Your task to perform on an android device: Search for "usb-c to usb-b" on target.com, select the first entry, add it to the cart, then select checkout. Image 0: 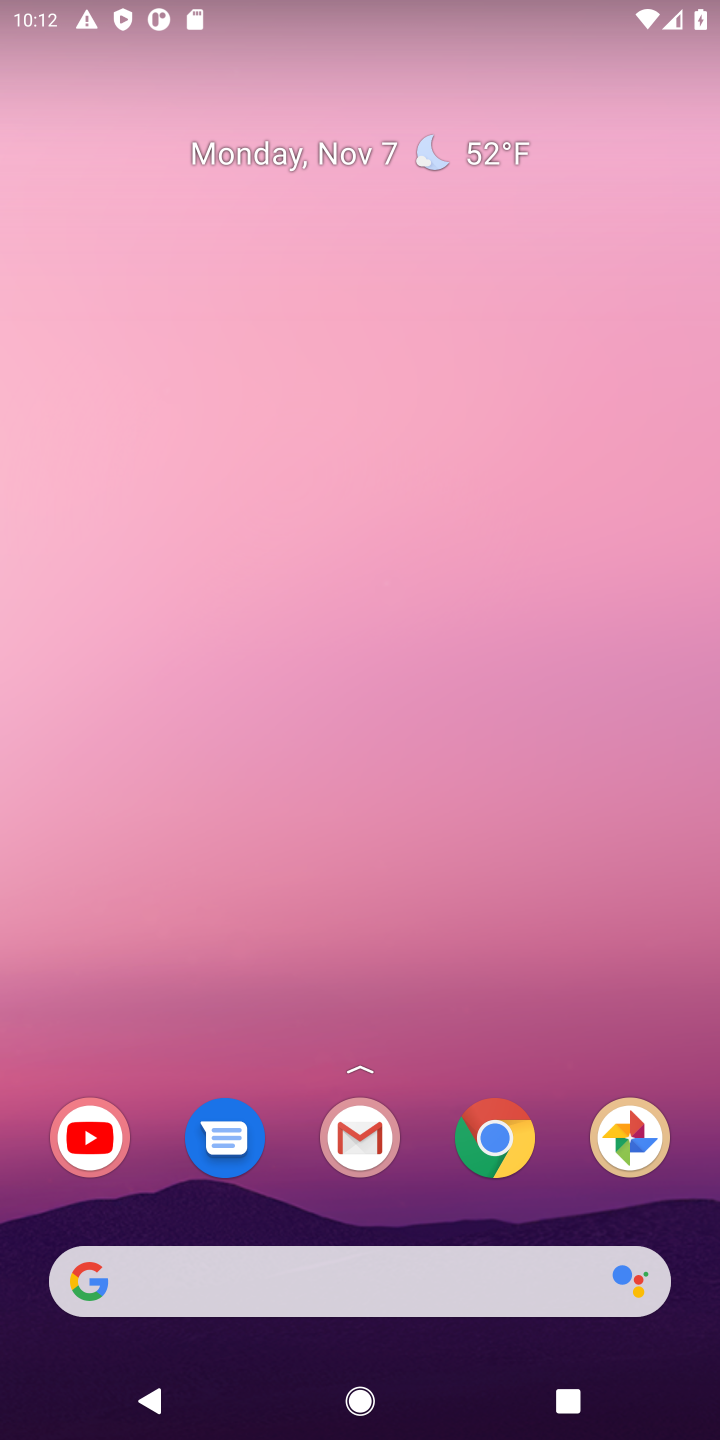
Step 0: click (479, 1144)
Your task to perform on an android device: Search for "usb-c to usb-b" on target.com, select the first entry, add it to the cart, then select checkout. Image 1: 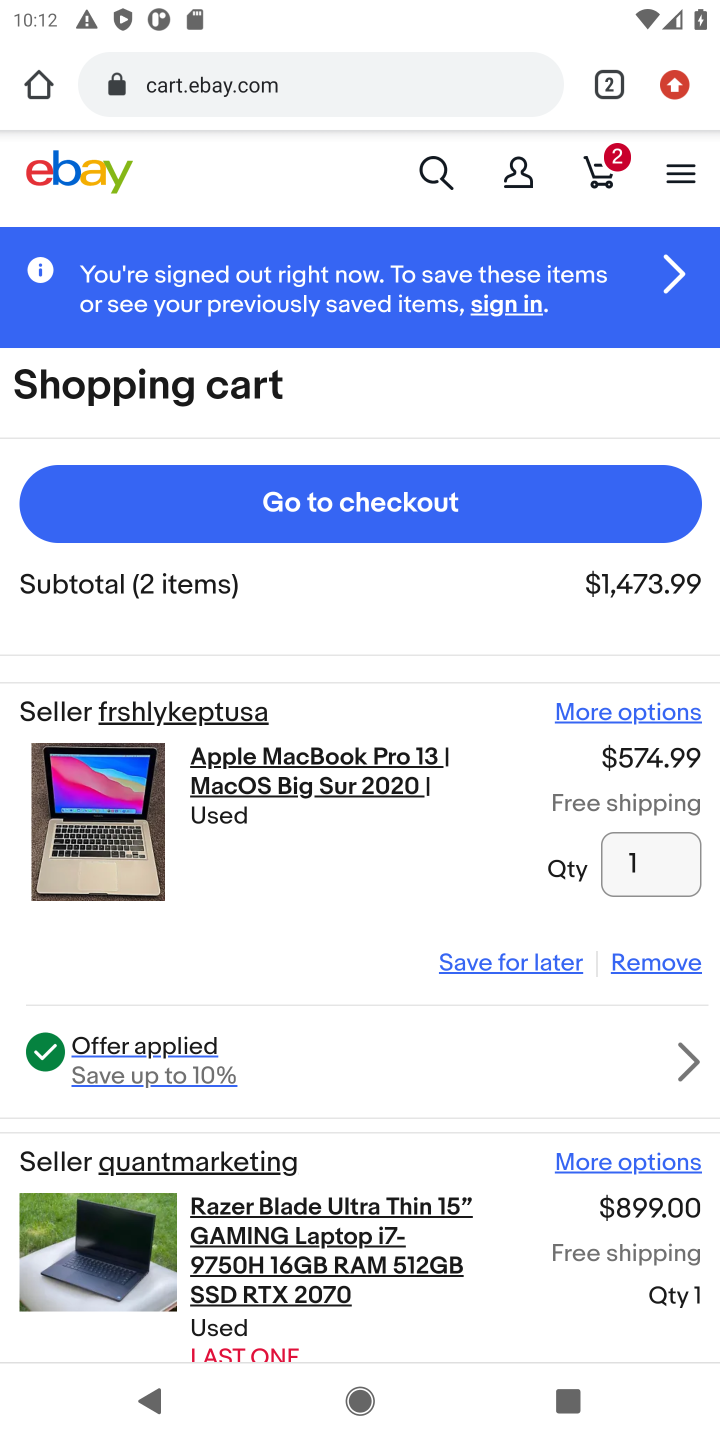
Step 1: click (215, 83)
Your task to perform on an android device: Search for "usb-c to usb-b" on target.com, select the first entry, add it to the cart, then select checkout. Image 2: 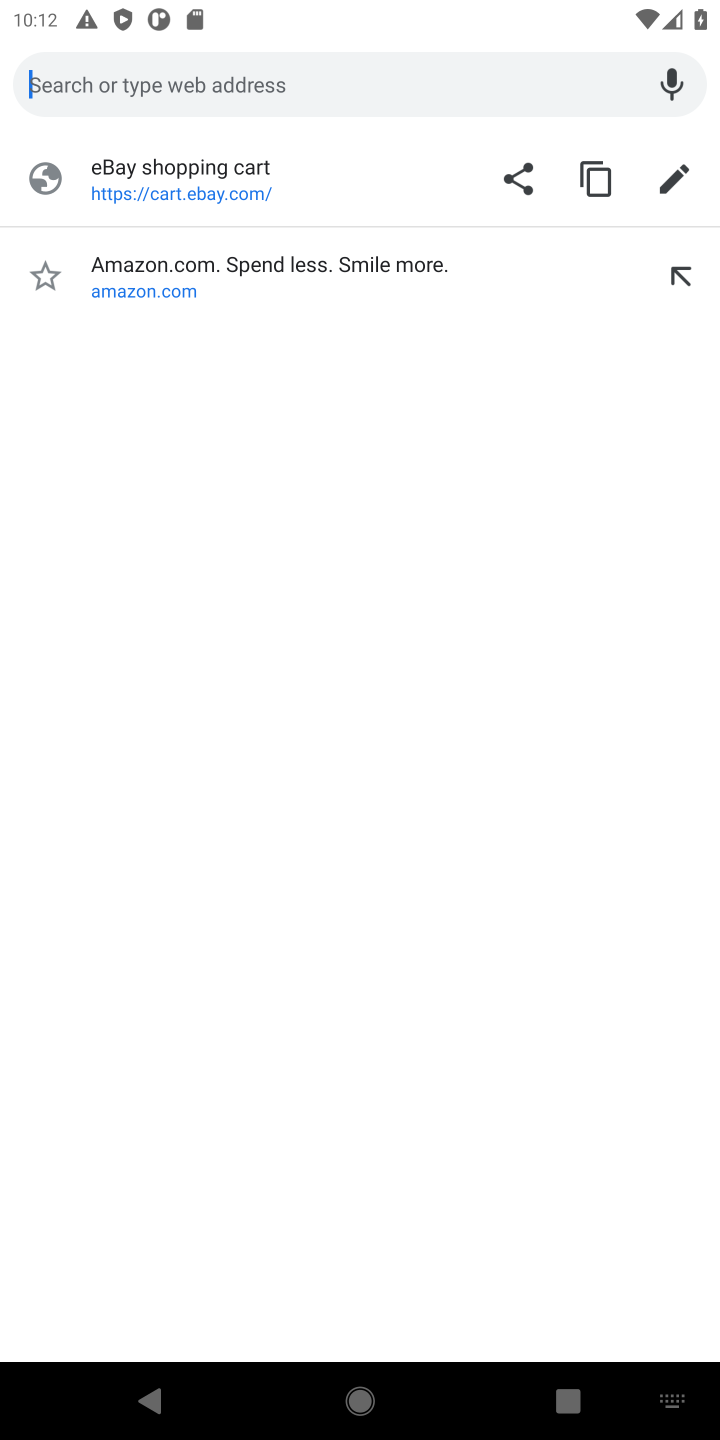
Step 2: type "target"
Your task to perform on an android device: Search for "usb-c to usb-b" on target.com, select the first entry, add it to the cart, then select checkout. Image 3: 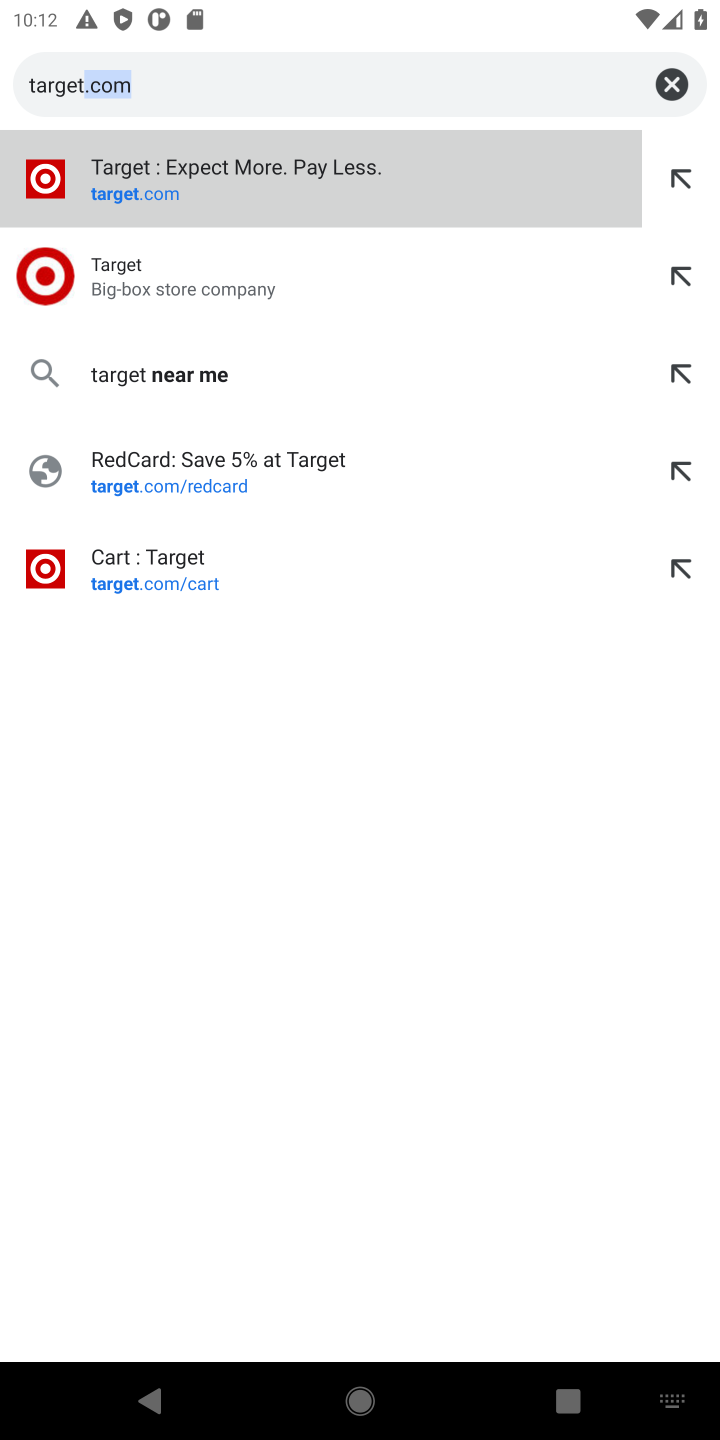
Step 3: click (139, 266)
Your task to perform on an android device: Search for "usb-c to usb-b" on target.com, select the first entry, add it to the cart, then select checkout. Image 4: 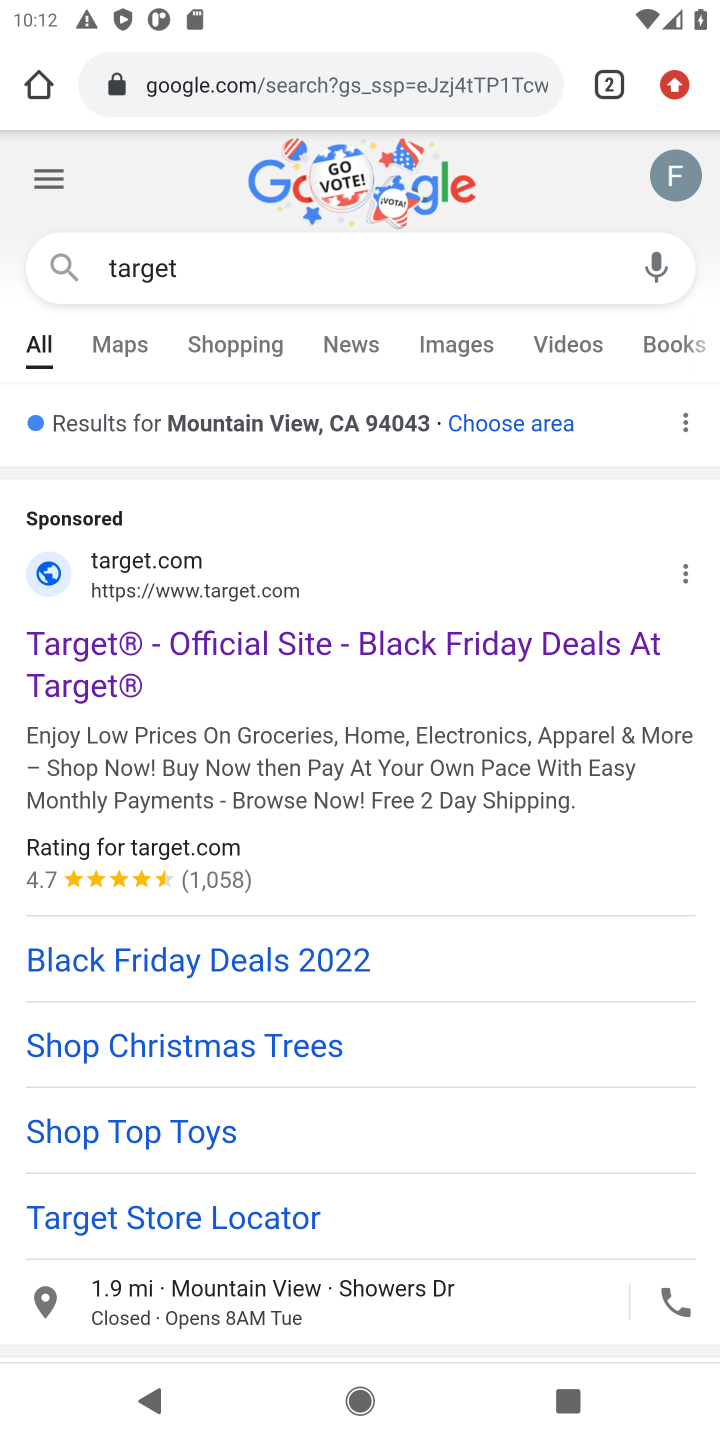
Step 4: drag from (357, 1041) to (439, 456)
Your task to perform on an android device: Search for "usb-c to usb-b" on target.com, select the first entry, add it to the cart, then select checkout. Image 5: 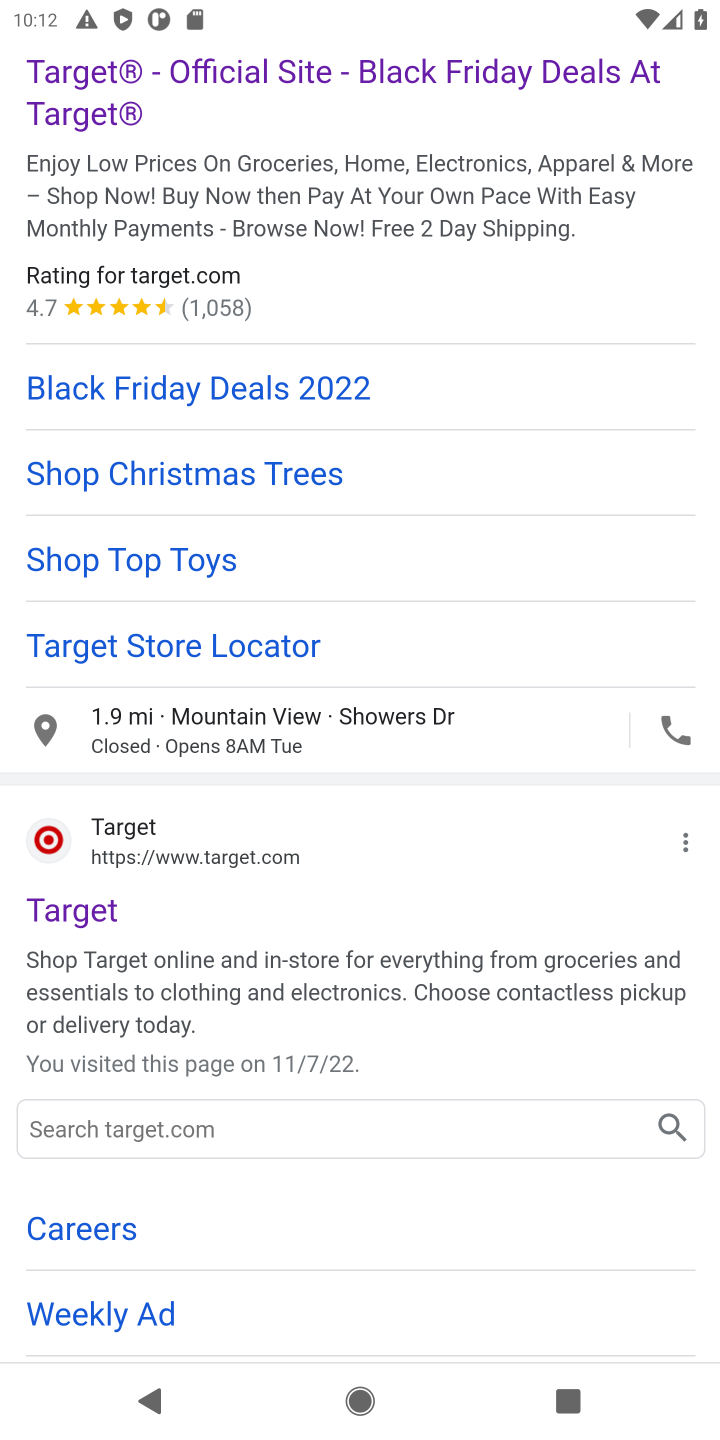
Step 5: click (68, 954)
Your task to perform on an android device: Search for "usb-c to usb-b" on target.com, select the first entry, add it to the cart, then select checkout. Image 6: 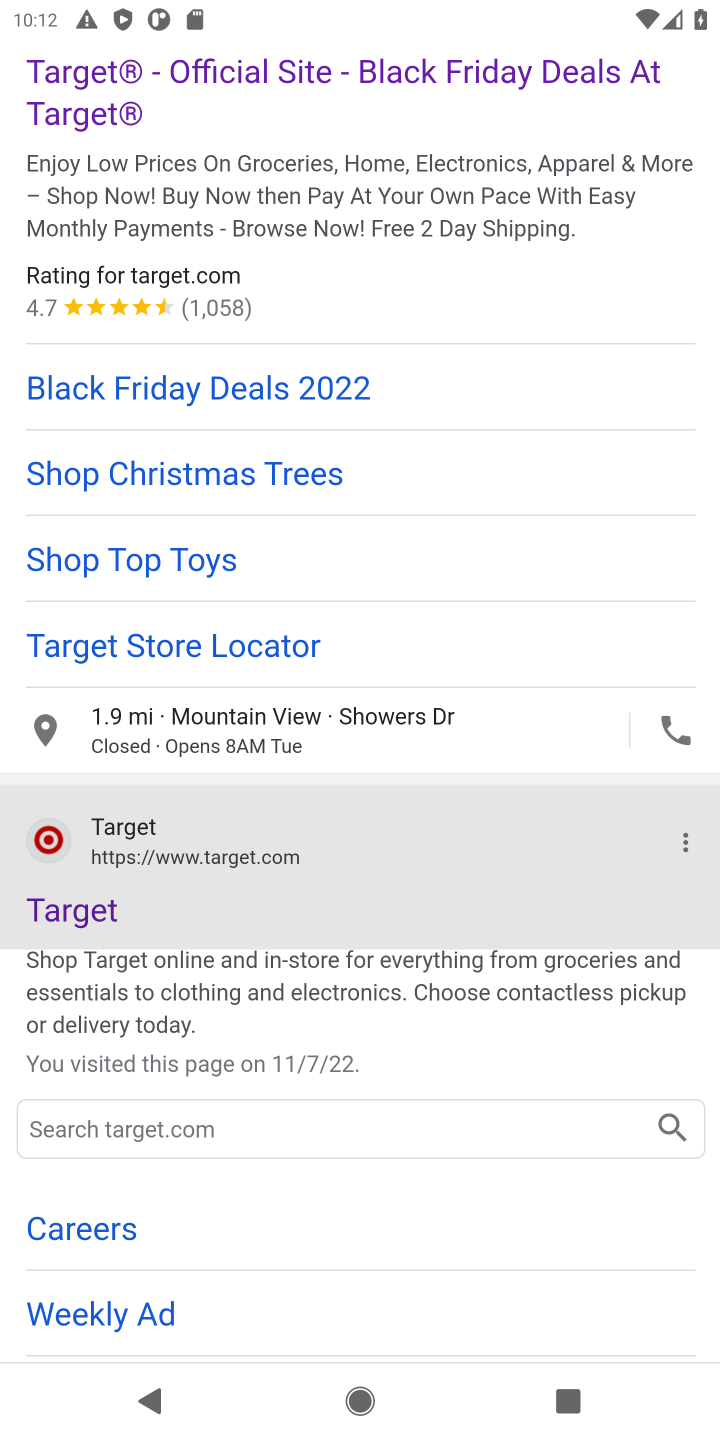
Step 6: click (77, 924)
Your task to perform on an android device: Search for "usb-c to usb-b" on target.com, select the first entry, add it to the cart, then select checkout. Image 7: 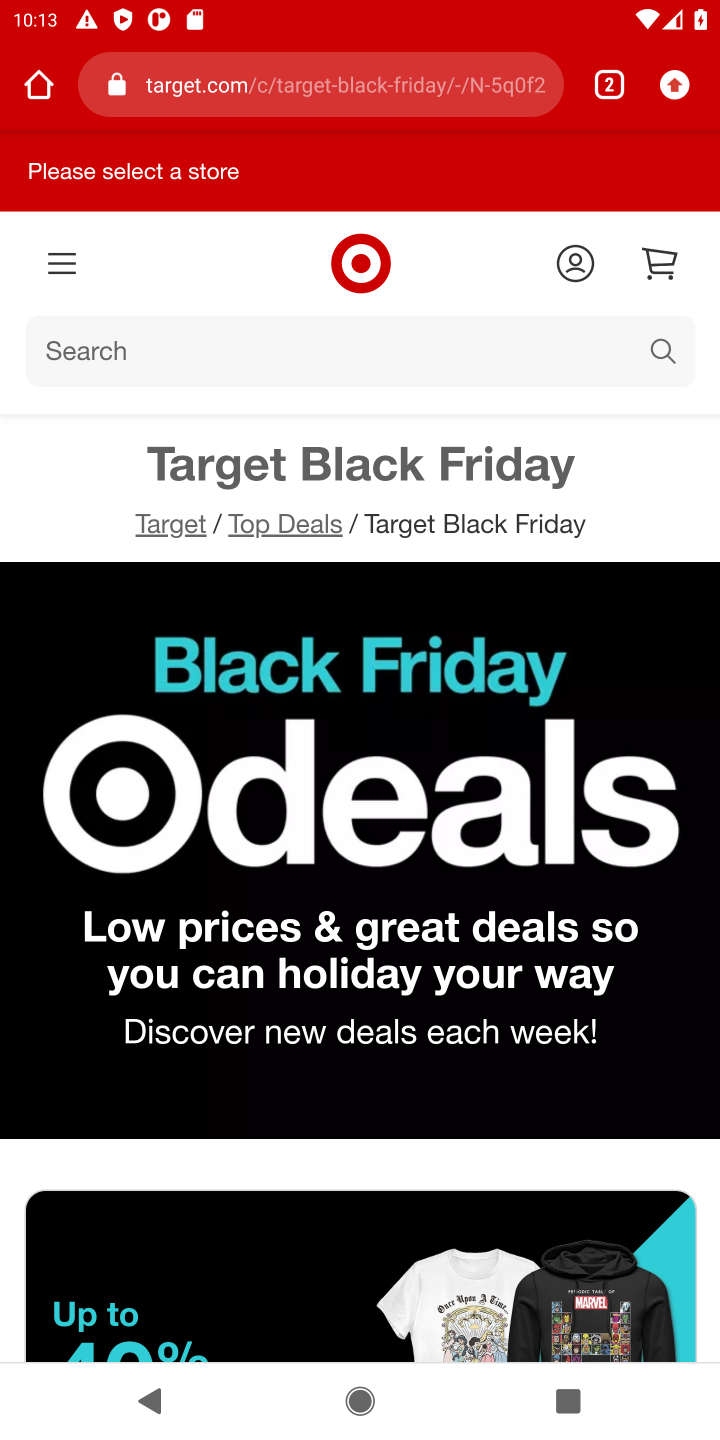
Step 7: click (636, 341)
Your task to perform on an android device: Search for "usb-c to usb-b" on target.com, select the first entry, add it to the cart, then select checkout. Image 8: 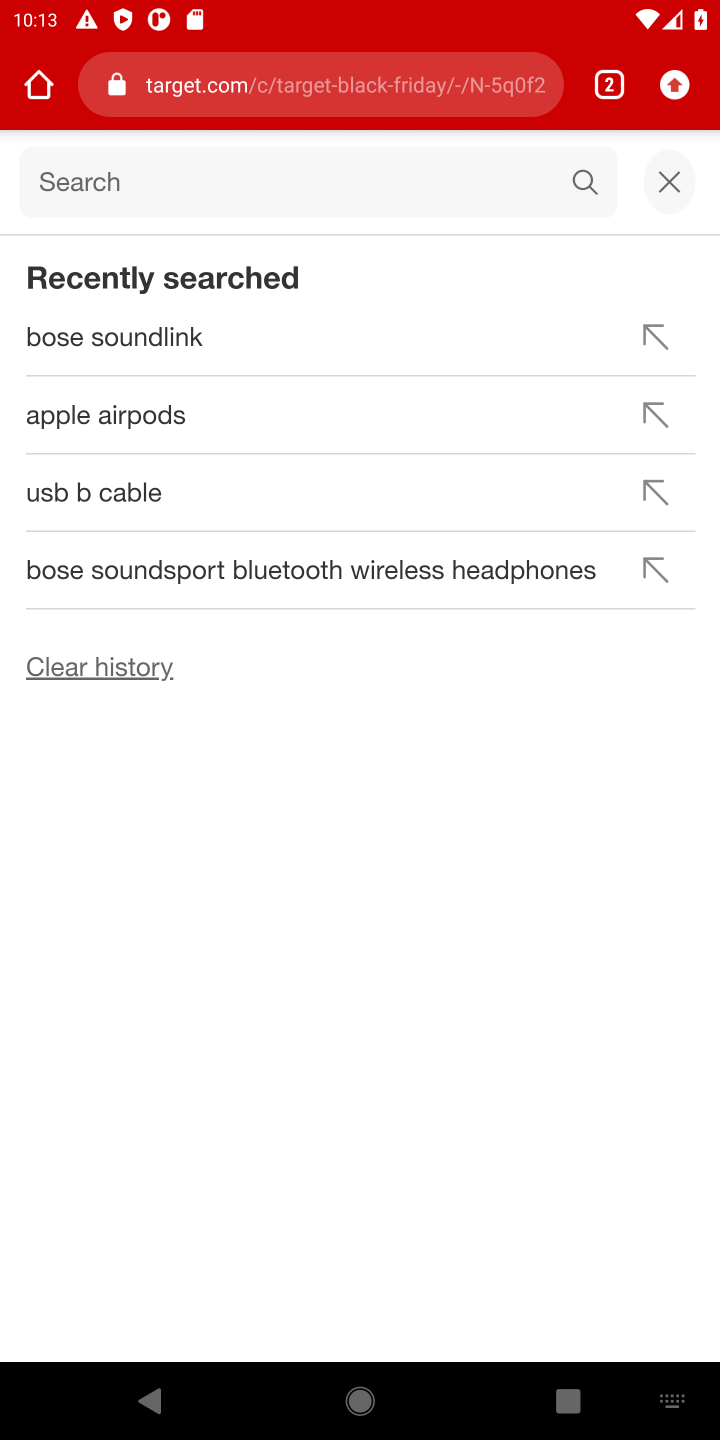
Step 8: type "usb c to usb b "
Your task to perform on an android device: Search for "usb-c to usb-b" on target.com, select the first entry, add it to the cart, then select checkout. Image 9: 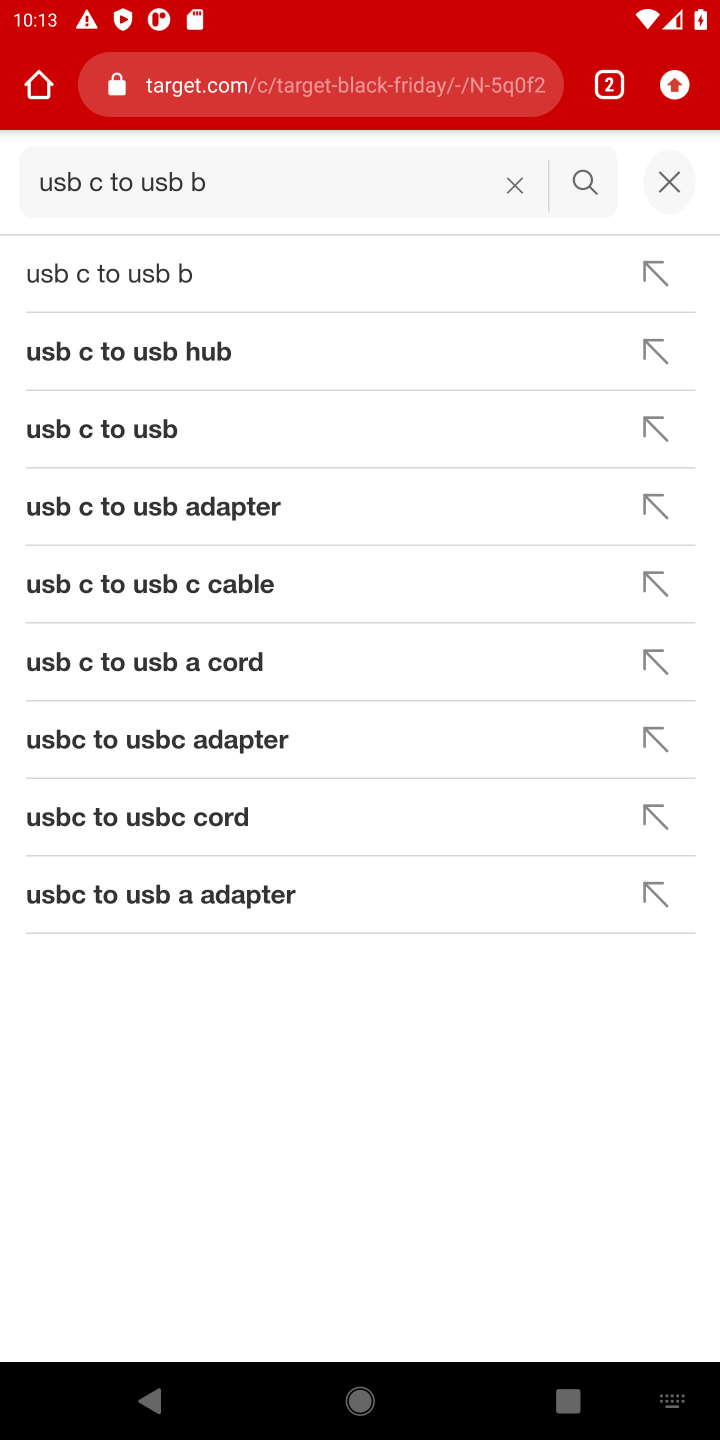
Step 9: click (146, 349)
Your task to perform on an android device: Search for "usb-c to usb-b" on target.com, select the first entry, add it to the cart, then select checkout. Image 10: 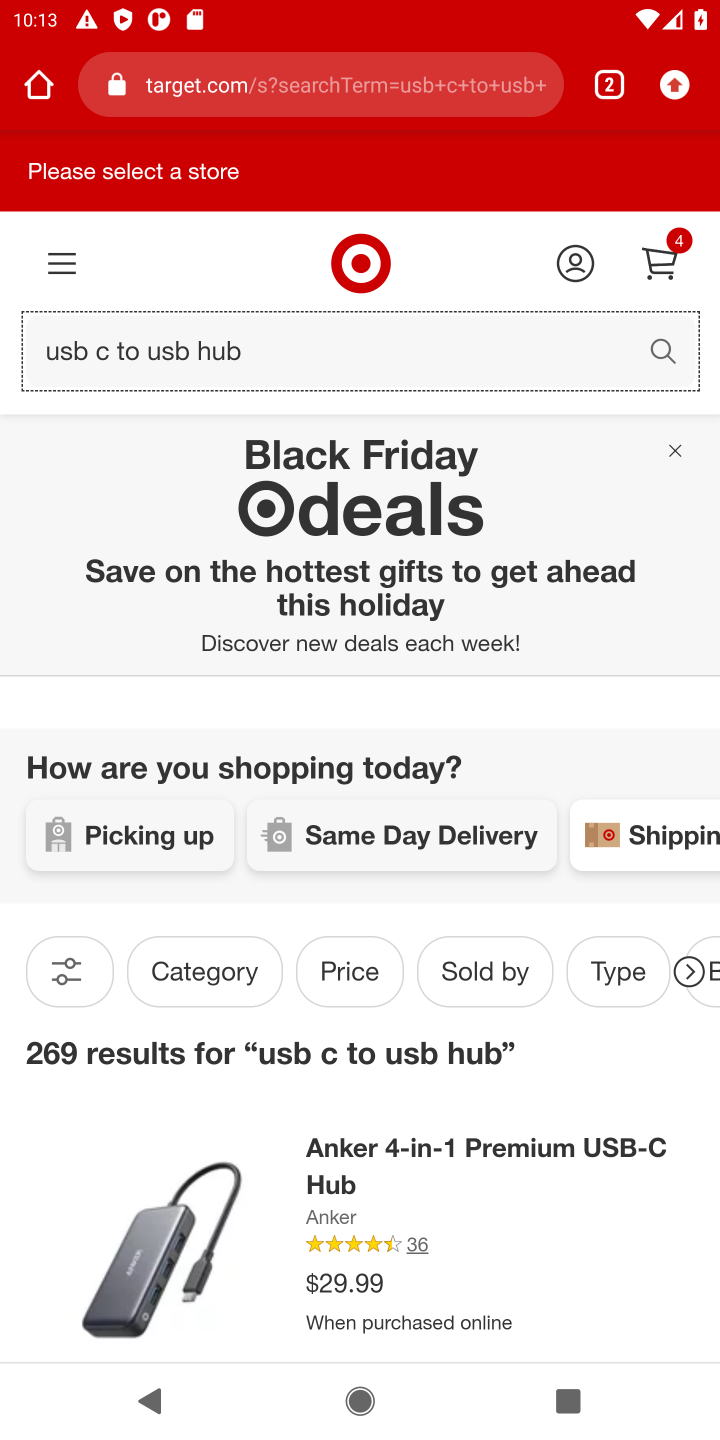
Step 10: drag from (503, 1280) to (513, 292)
Your task to perform on an android device: Search for "usb-c to usb-b" on target.com, select the first entry, add it to the cart, then select checkout. Image 11: 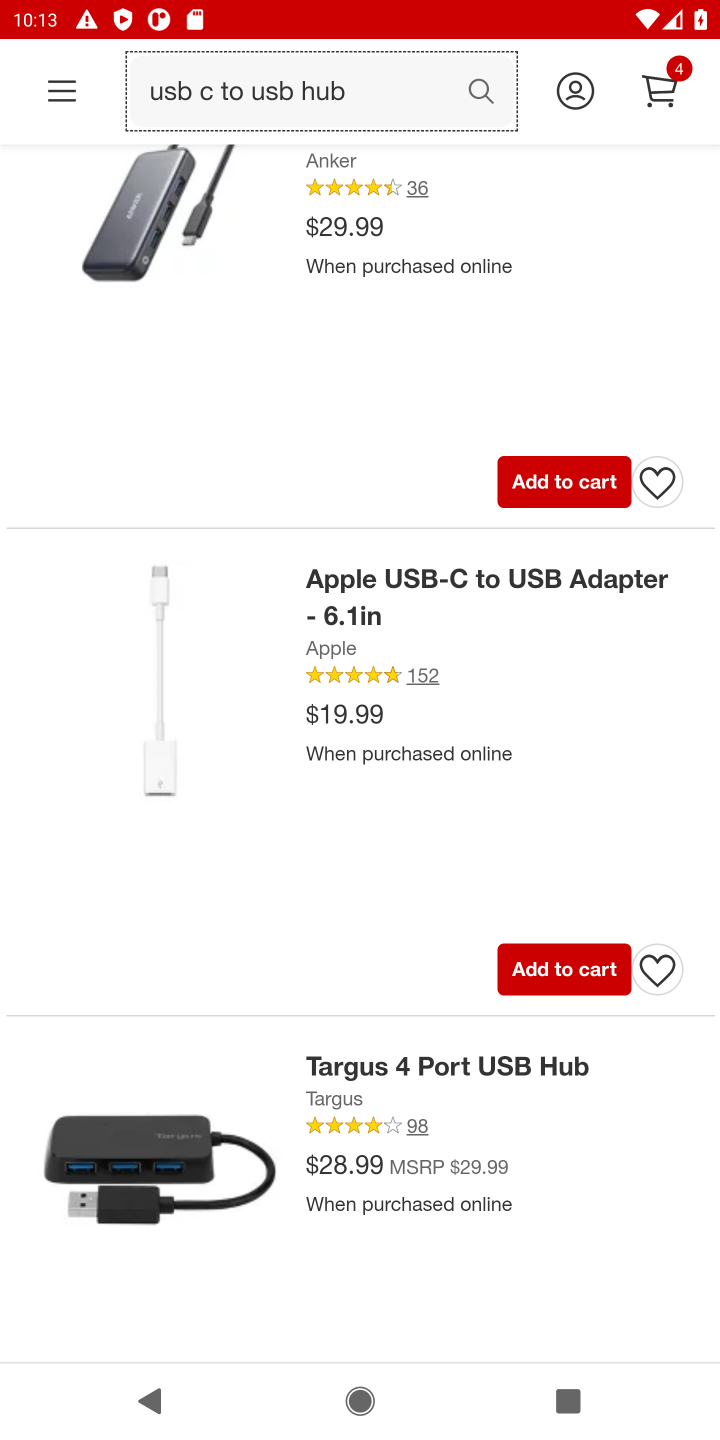
Step 11: click (404, 654)
Your task to perform on an android device: Search for "usb-c to usb-b" on target.com, select the first entry, add it to the cart, then select checkout. Image 12: 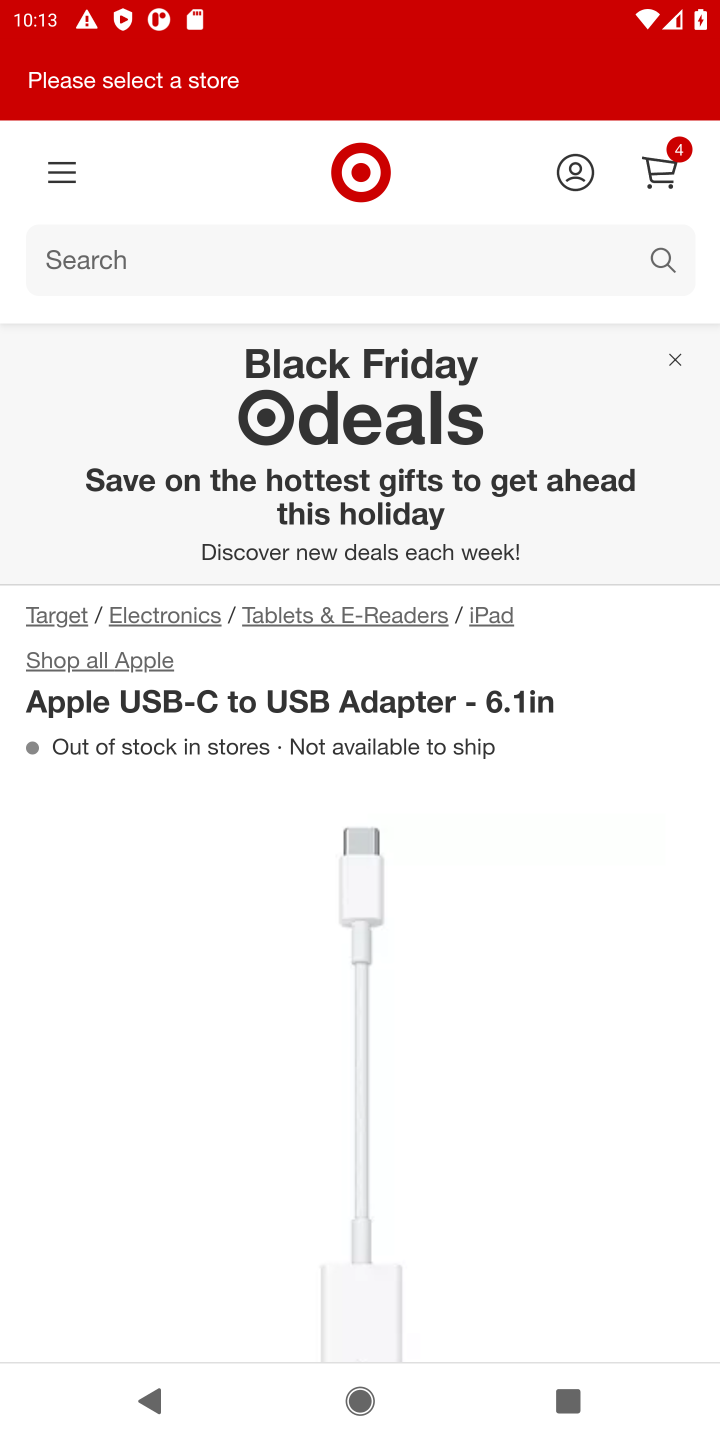
Step 12: drag from (531, 1044) to (503, 557)
Your task to perform on an android device: Search for "usb-c to usb-b" on target.com, select the first entry, add it to the cart, then select checkout. Image 13: 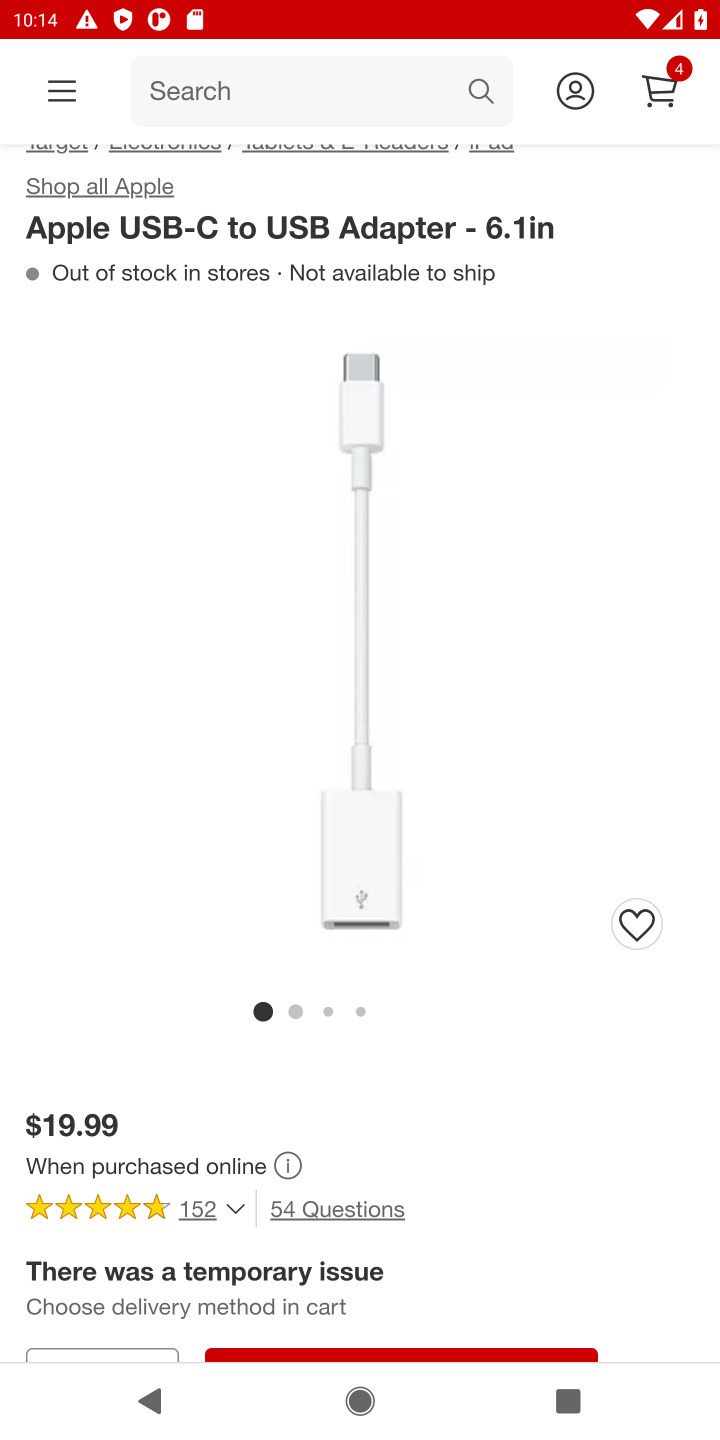
Step 13: drag from (294, 872) to (328, 306)
Your task to perform on an android device: Search for "usb-c to usb-b" on target.com, select the first entry, add it to the cart, then select checkout. Image 14: 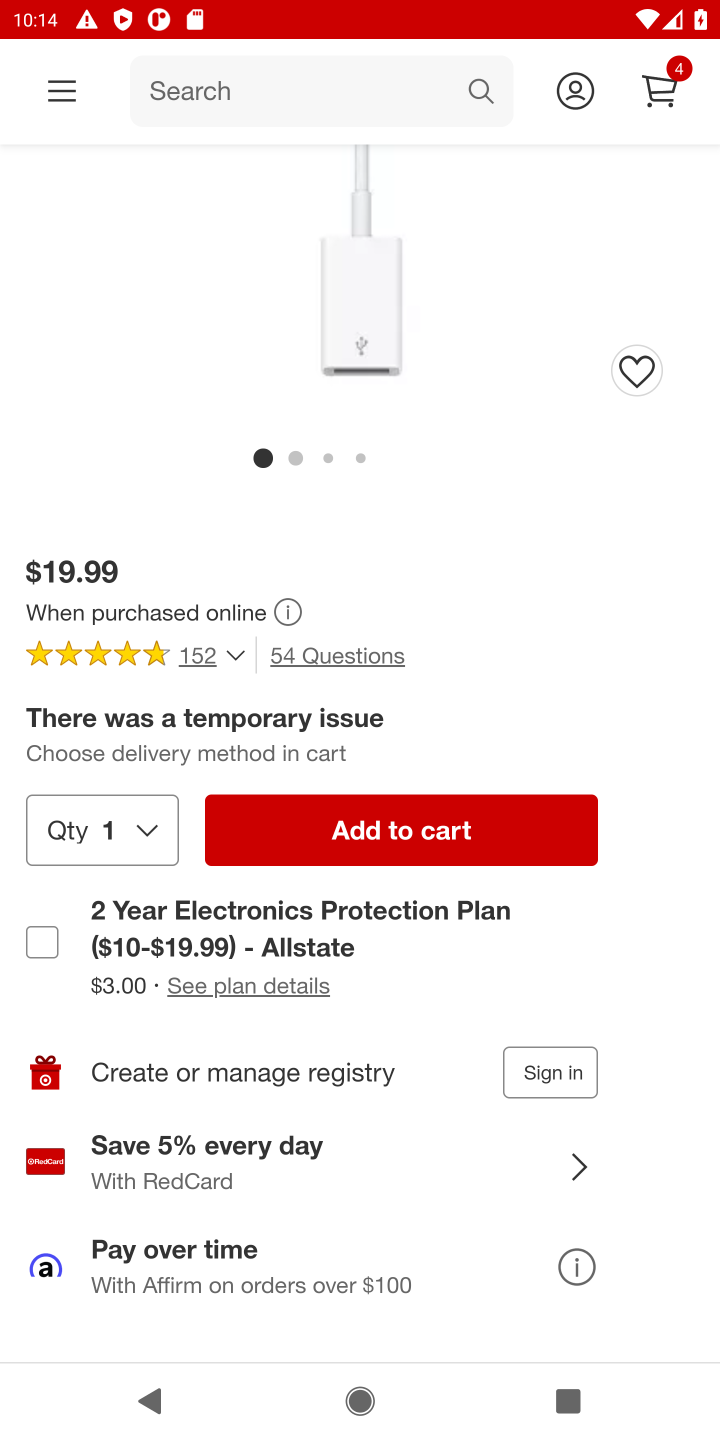
Step 14: click (367, 835)
Your task to perform on an android device: Search for "usb-c to usb-b" on target.com, select the first entry, add it to the cart, then select checkout. Image 15: 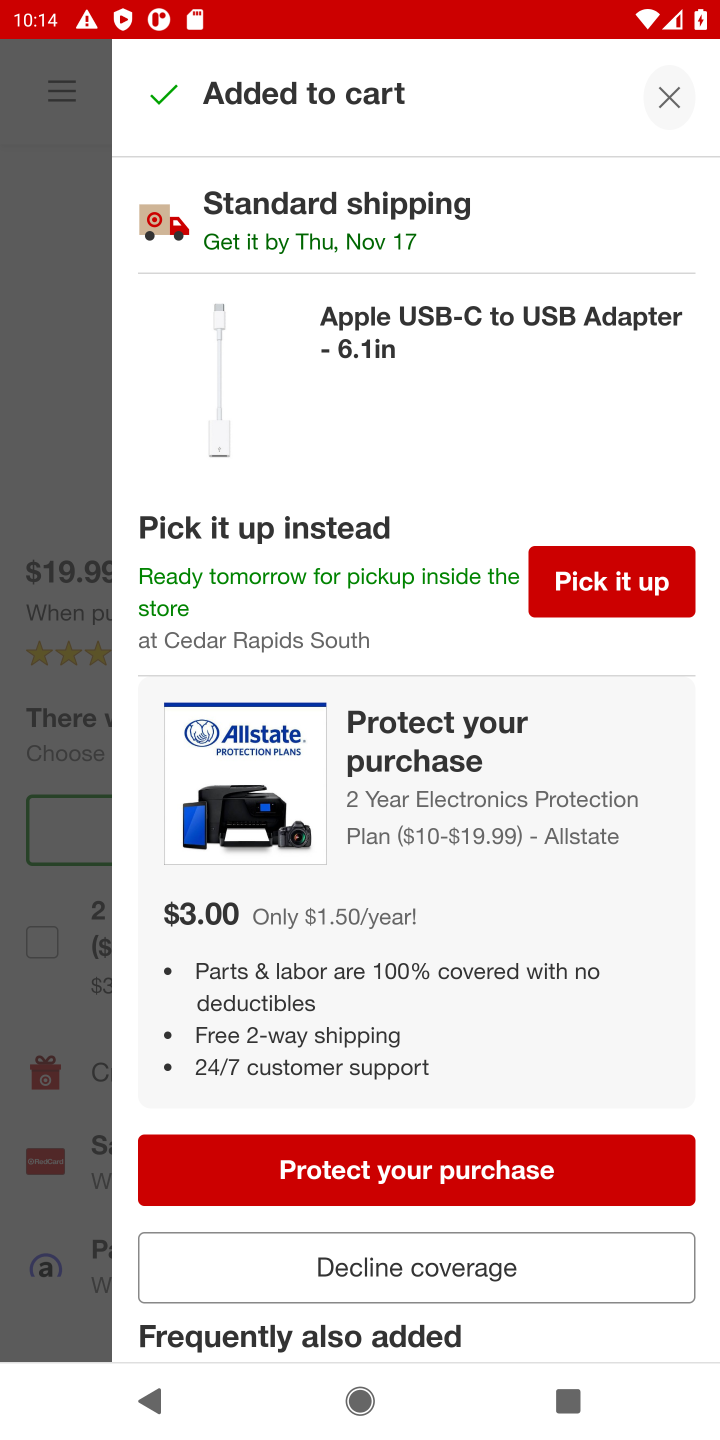
Step 15: click (424, 1179)
Your task to perform on an android device: Search for "usb-c to usb-b" on target.com, select the first entry, add it to the cart, then select checkout. Image 16: 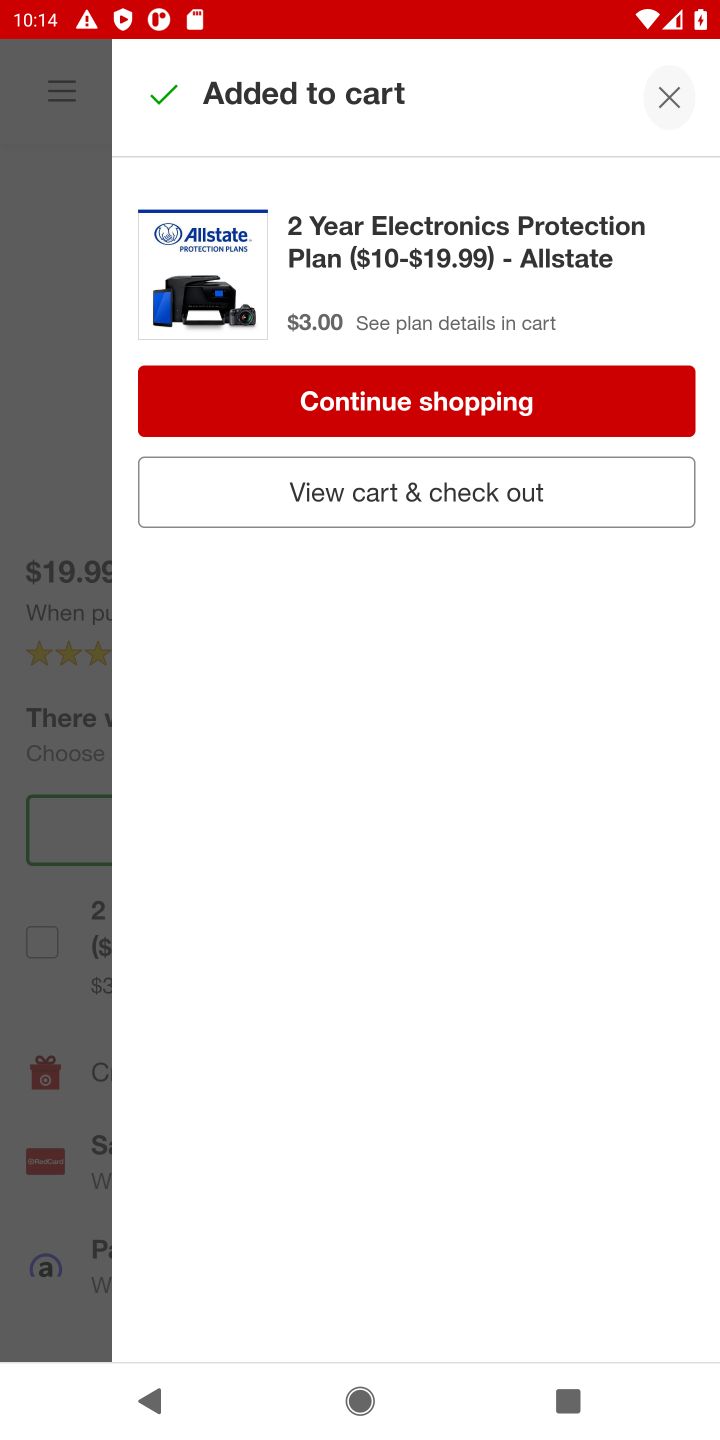
Step 16: click (380, 500)
Your task to perform on an android device: Search for "usb-c to usb-b" on target.com, select the first entry, add it to the cart, then select checkout. Image 17: 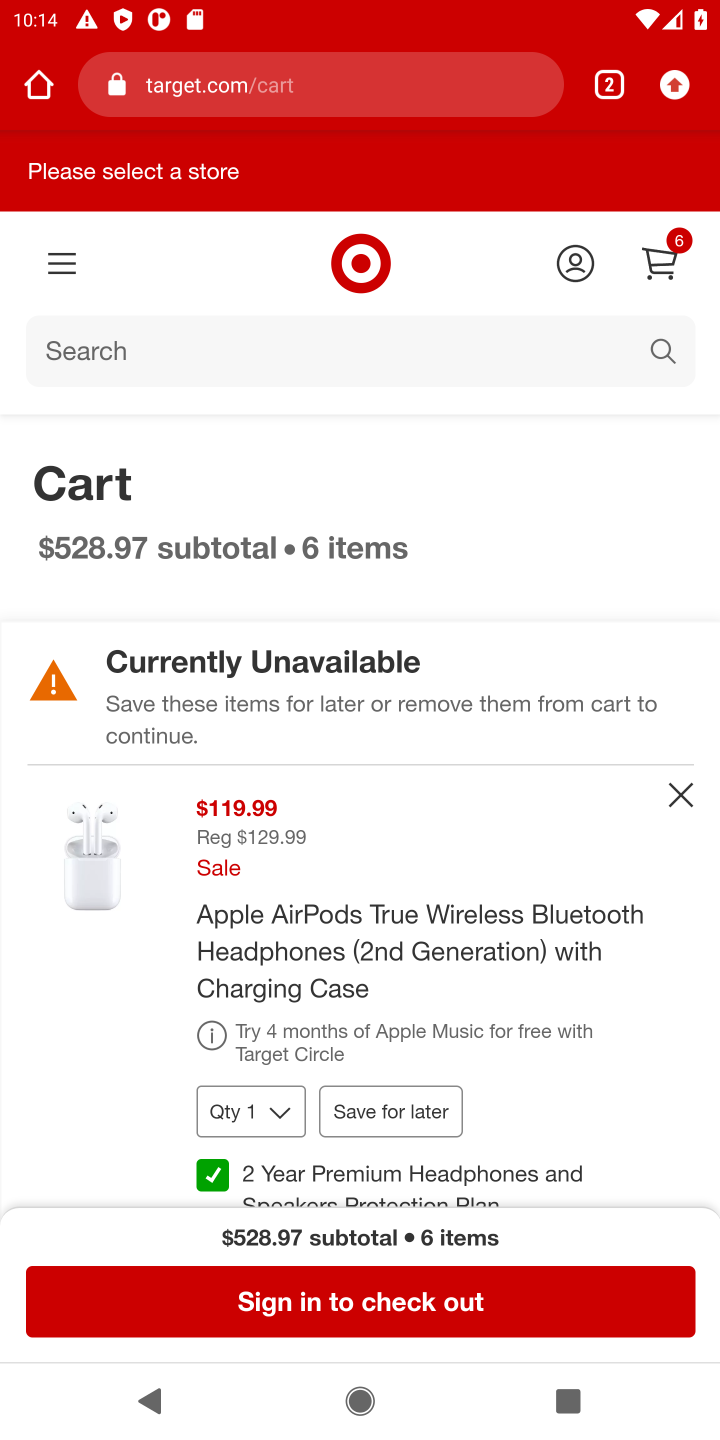
Step 17: click (490, 1327)
Your task to perform on an android device: Search for "usb-c to usb-b" on target.com, select the first entry, add it to the cart, then select checkout. Image 18: 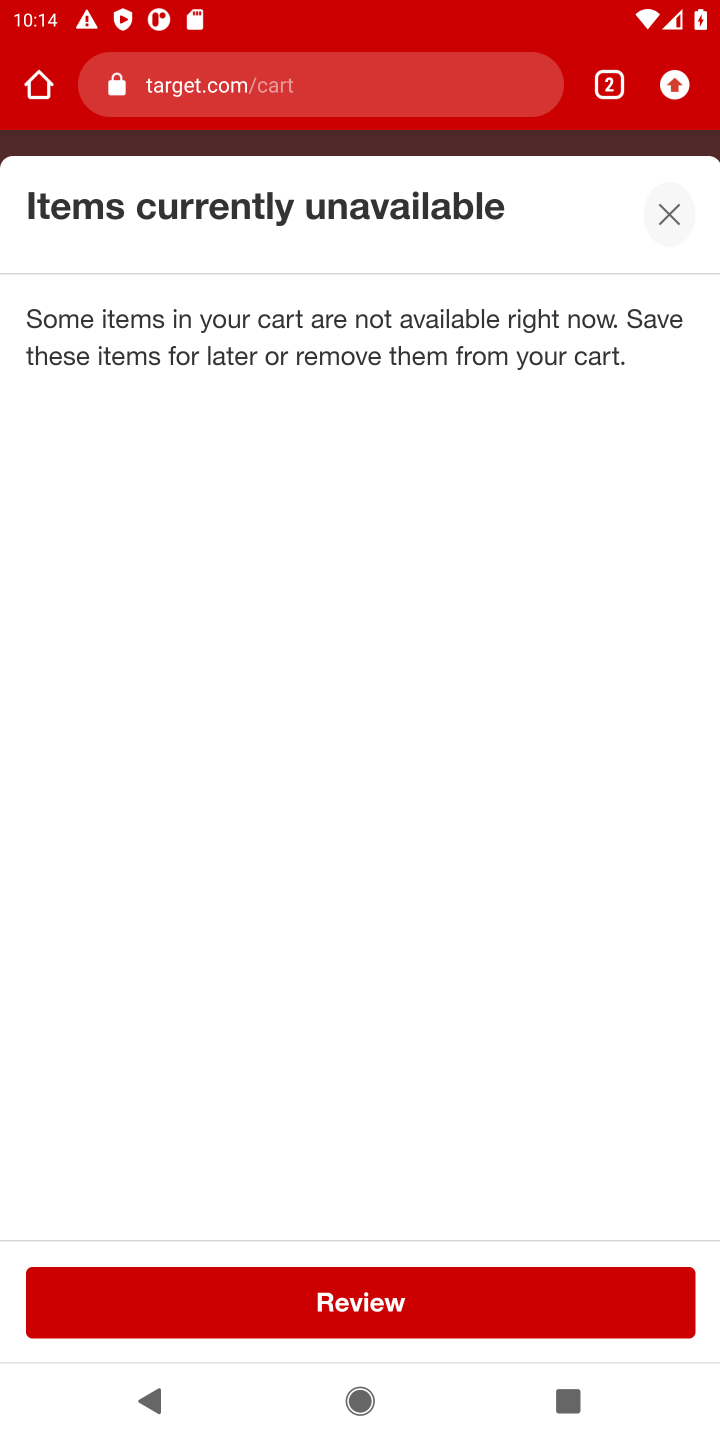
Step 18: task complete